Your task to perform on an android device: Open display settings Image 0: 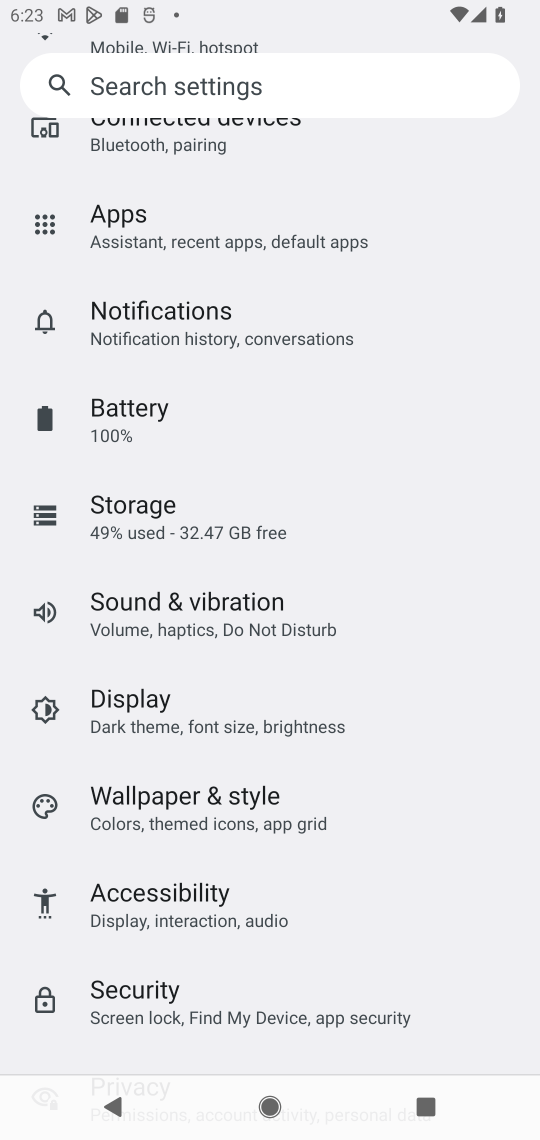
Step 0: click (241, 703)
Your task to perform on an android device: Open display settings Image 1: 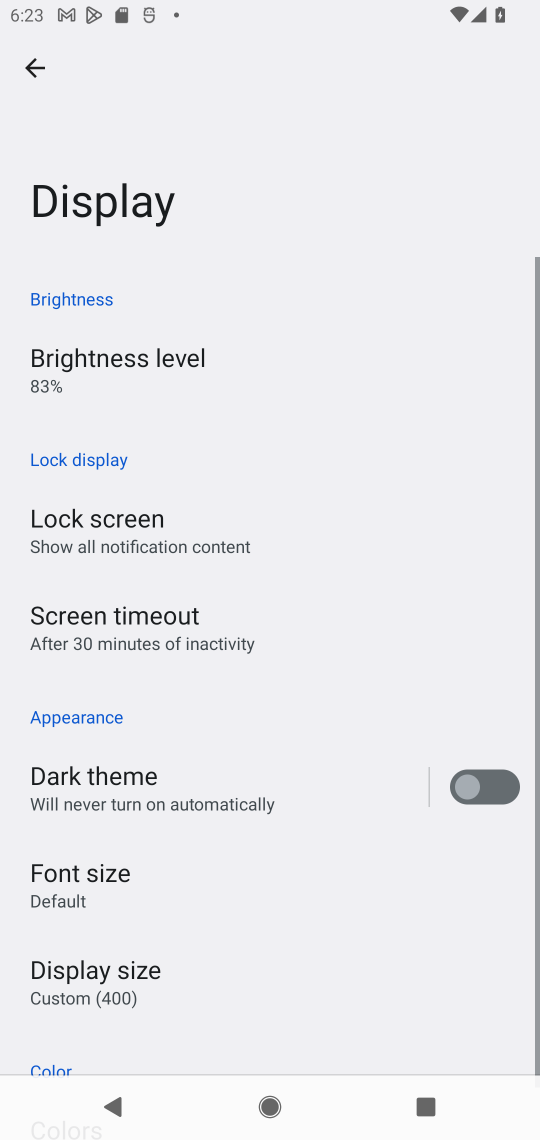
Step 1: task complete